Your task to perform on an android device: turn off notifications in google photos Image 0: 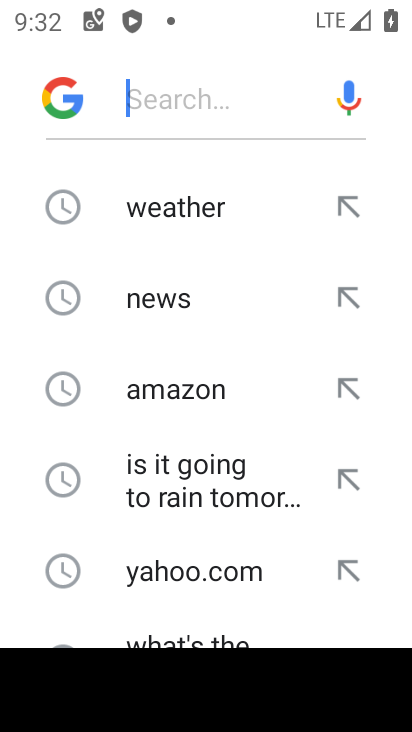
Step 0: press home button
Your task to perform on an android device: turn off notifications in google photos Image 1: 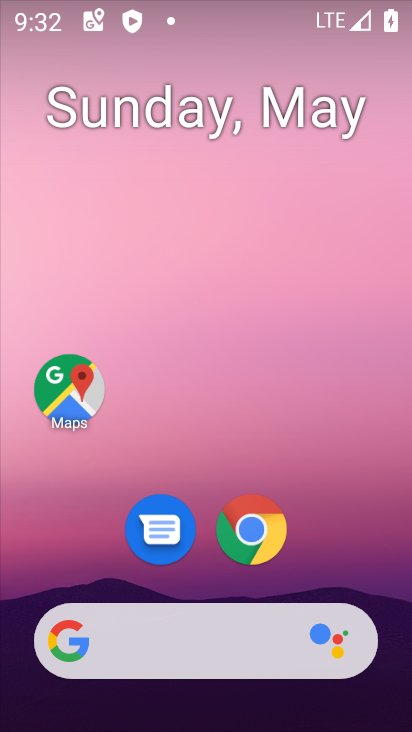
Step 1: drag from (335, 558) to (244, 102)
Your task to perform on an android device: turn off notifications in google photos Image 2: 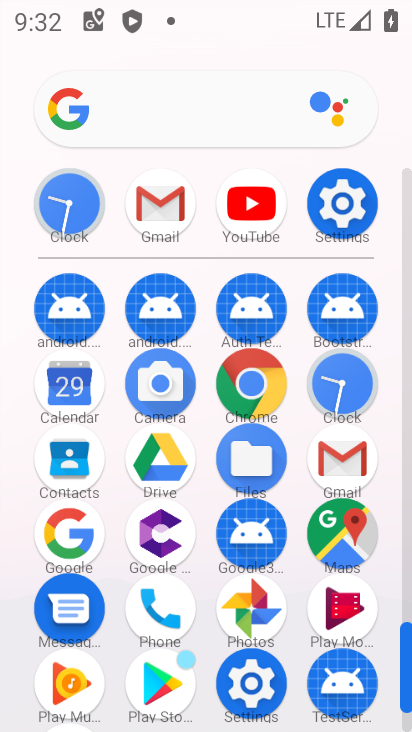
Step 2: click (263, 609)
Your task to perform on an android device: turn off notifications in google photos Image 3: 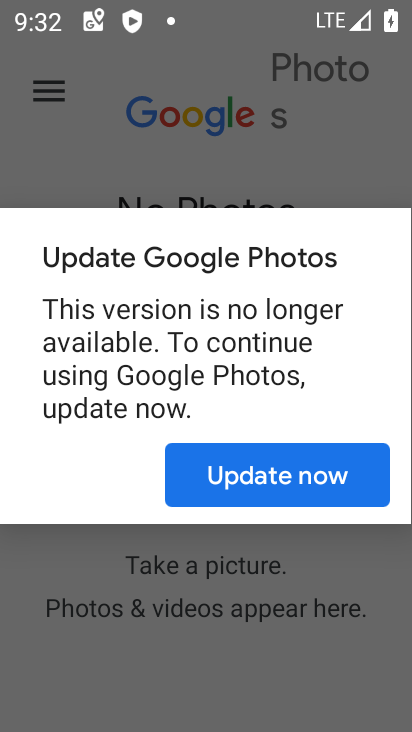
Step 3: click (234, 456)
Your task to perform on an android device: turn off notifications in google photos Image 4: 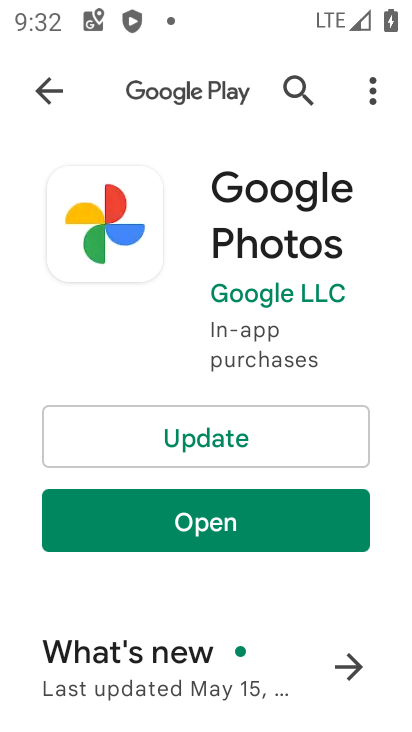
Step 4: click (197, 454)
Your task to perform on an android device: turn off notifications in google photos Image 5: 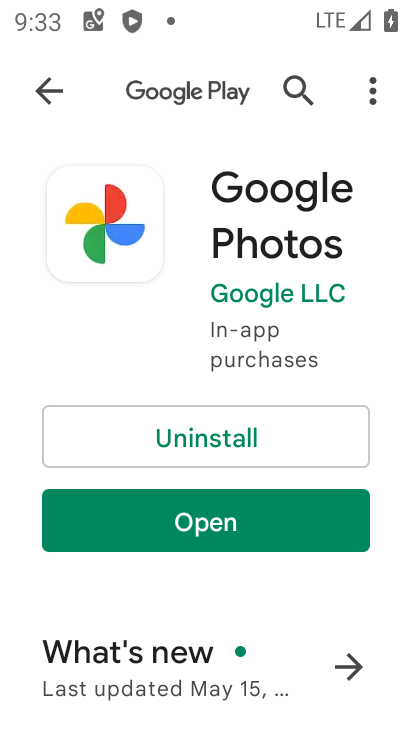
Step 5: click (190, 520)
Your task to perform on an android device: turn off notifications in google photos Image 6: 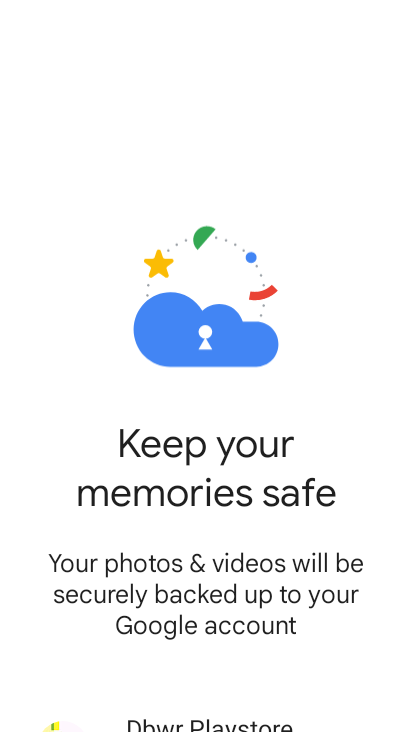
Step 6: task complete